Your task to perform on an android device: Search for hotels in Sydney Image 0: 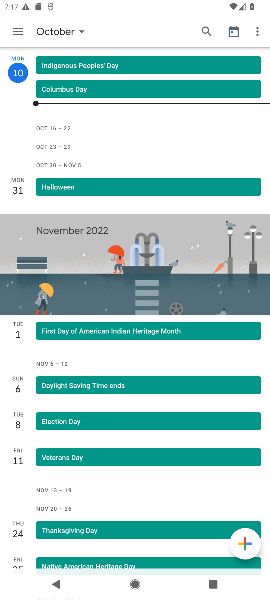
Step 0: press home button
Your task to perform on an android device: Search for hotels in Sydney Image 1: 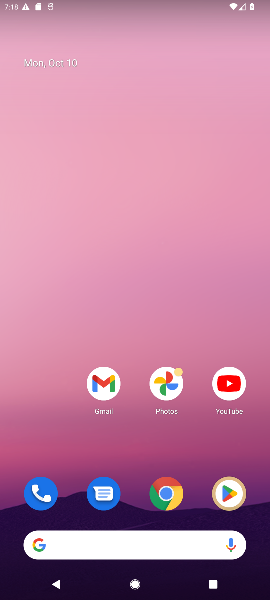
Step 1: click (114, 548)
Your task to perform on an android device: Search for hotels in Sydney Image 2: 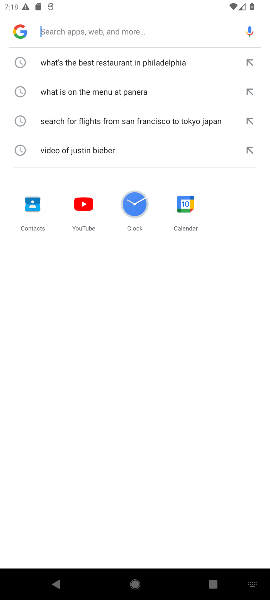
Step 2: type " hotels in Sydney"
Your task to perform on an android device: Search for hotels in Sydney Image 3: 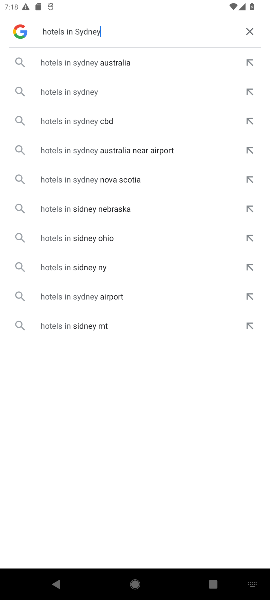
Step 3: click (89, 95)
Your task to perform on an android device: Search for hotels in Sydney Image 4: 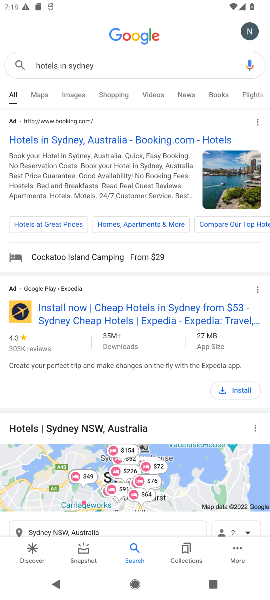
Step 4: task complete